Your task to perform on an android device: Show me popular games on the Play Store Image 0: 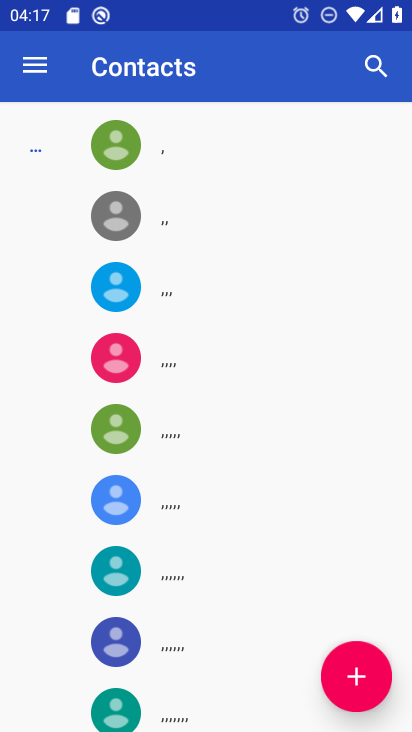
Step 0: press home button
Your task to perform on an android device: Show me popular games on the Play Store Image 1: 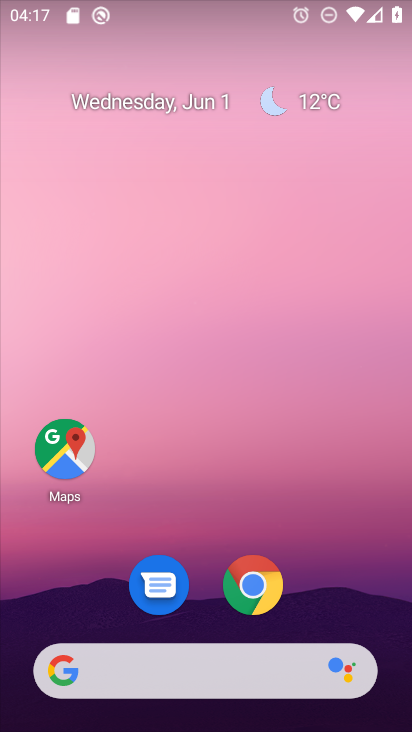
Step 1: drag from (222, 535) to (197, 4)
Your task to perform on an android device: Show me popular games on the Play Store Image 2: 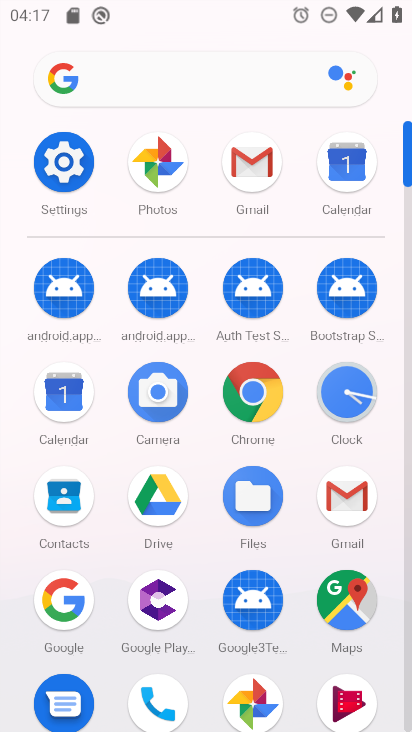
Step 2: drag from (121, 594) to (124, 281)
Your task to perform on an android device: Show me popular games on the Play Store Image 3: 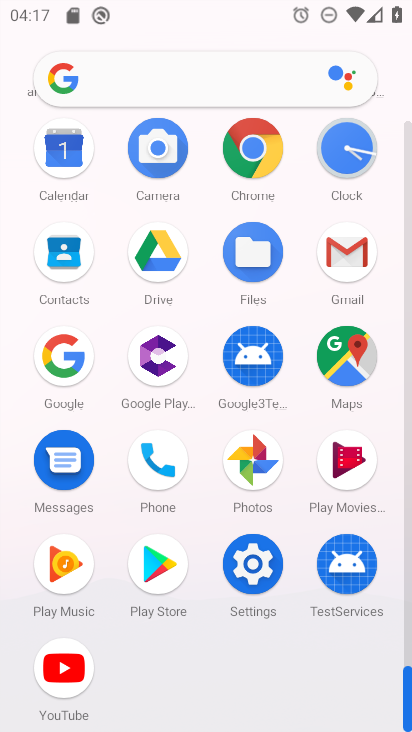
Step 3: click (158, 549)
Your task to perform on an android device: Show me popular games on the Play Store Image 4: 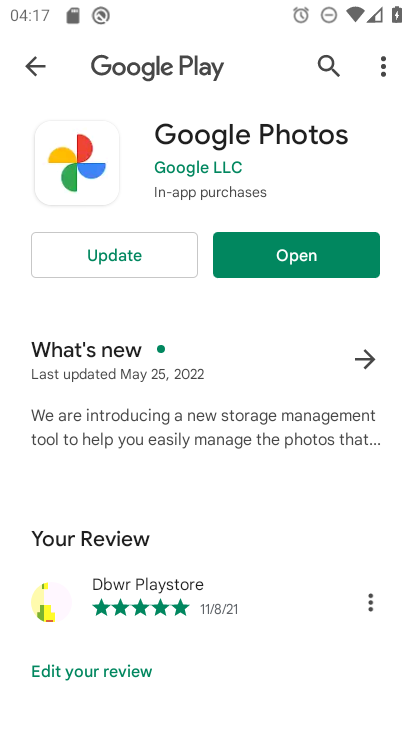
Step 4: click (29, 58)
Your task to perform on an android device: Show me popular games on the Play Store Image 5: 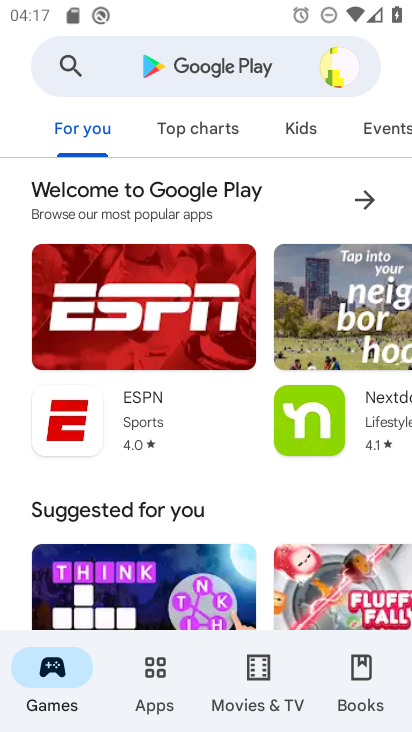
Step 5: click (77, 684)
Your task to perform on an android device: Show me popular games on the Play Store Image 6: 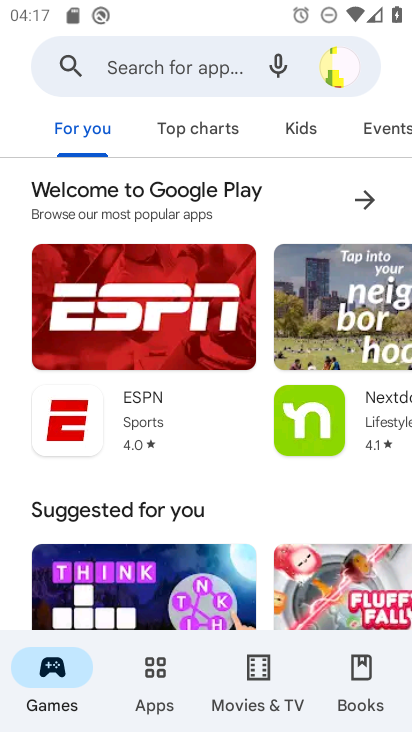
Step 6: drag from (246, 511) to (241, 44)
Your task to perform on an android device: Show me popular games on the Play Store Image 7: 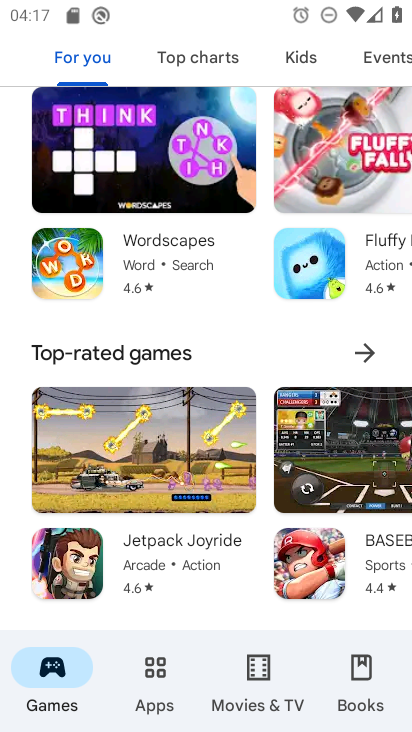
Step 7: drag from (242, 415) to (225, 129)
Your task to perform on an android device: Show me popular games on the Play Store Image 8: 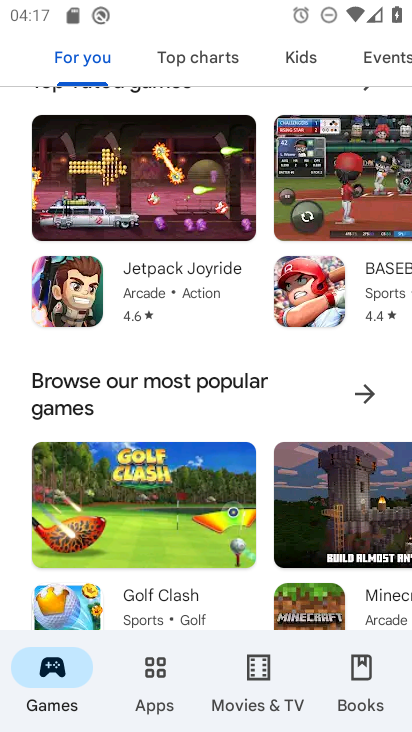
Step 8: click (359, 388)
Your task to perform on an android device: Show me popular games on the Play Store Image 9: 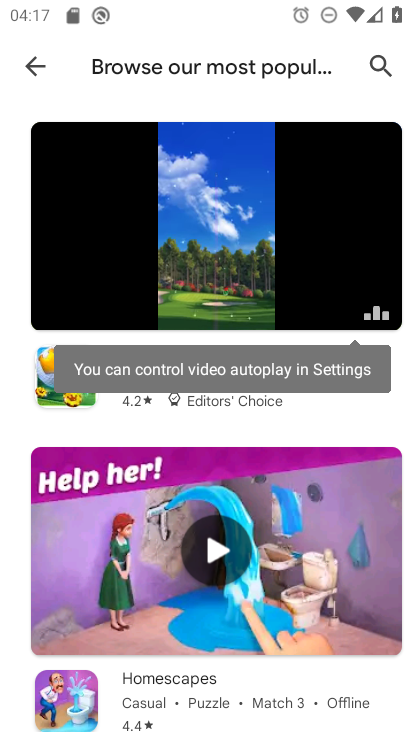
Step 9: task complete